Your task to perform on an android device: Open notification settings Image 0: 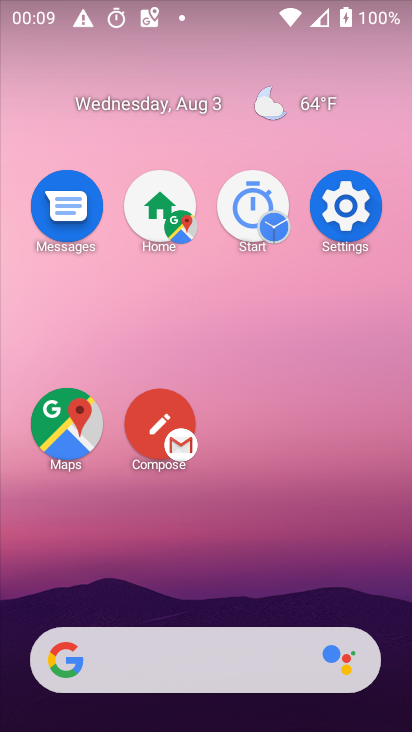
Step 0: click (358, 213)
Your task to perform on an android device: Open notification settings Image 1: 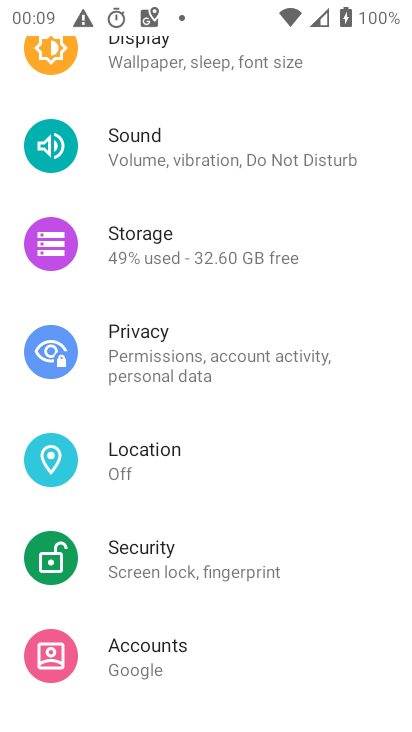
Step 1: click (354, 213)
Your task to perform on an android device: Open notification settings Image 2: 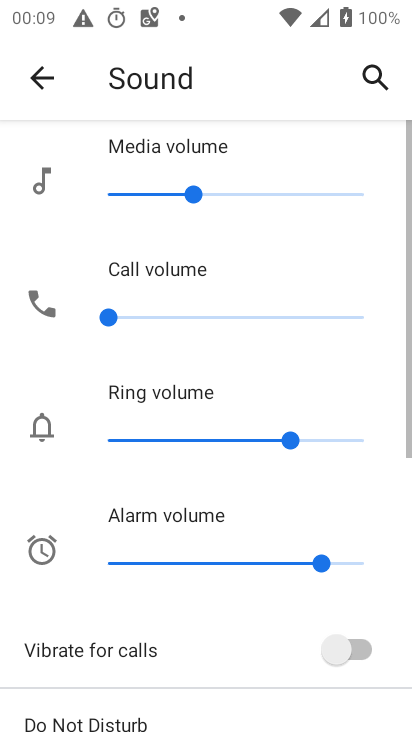
Step 2: click (174, 537)
Your task to perform on an android device: Open notification settings Image 3: 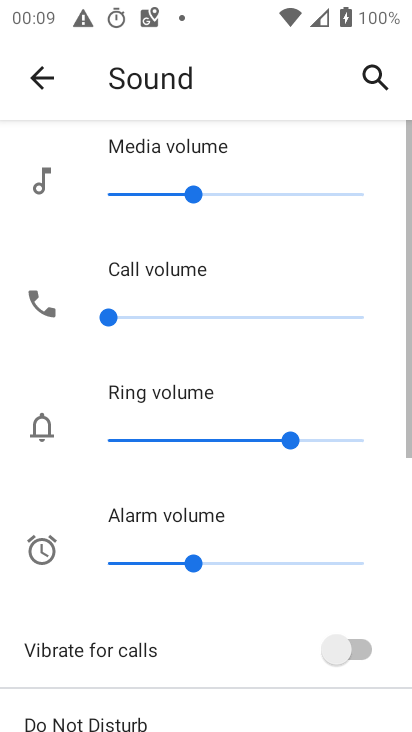
Step 3: click (36, 84)
Your task to perform on an android device: Open notification settings Image 4: 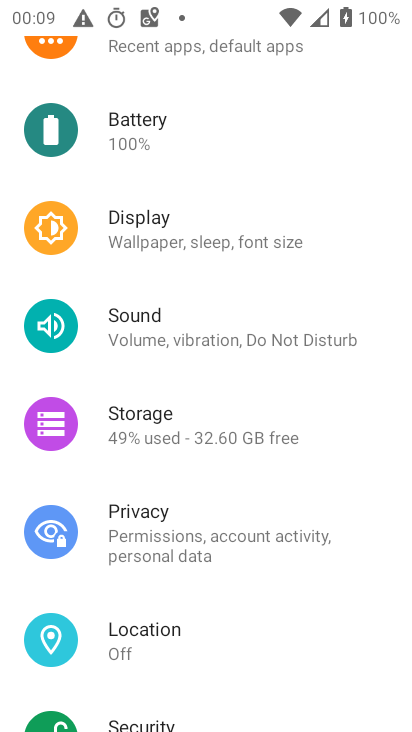
Step 4: drag from (139, 83) to (190, 652)
Your task to perform on an android device: Open notification settings Image 5: 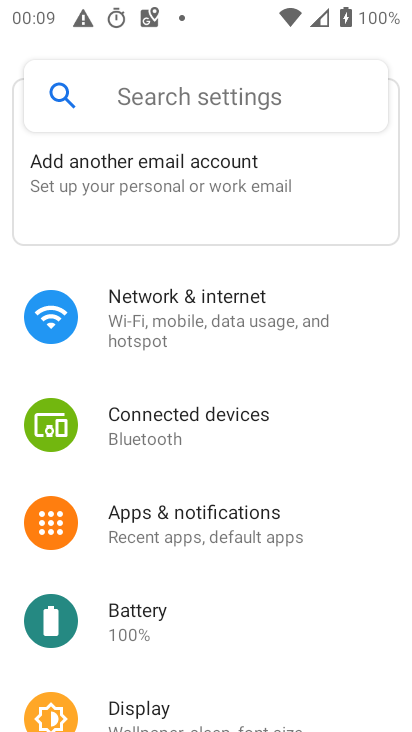
Step 5: drag from (158, 264) to (206, 701)
Your task to perform on an android device: Open notification settings Image 6: 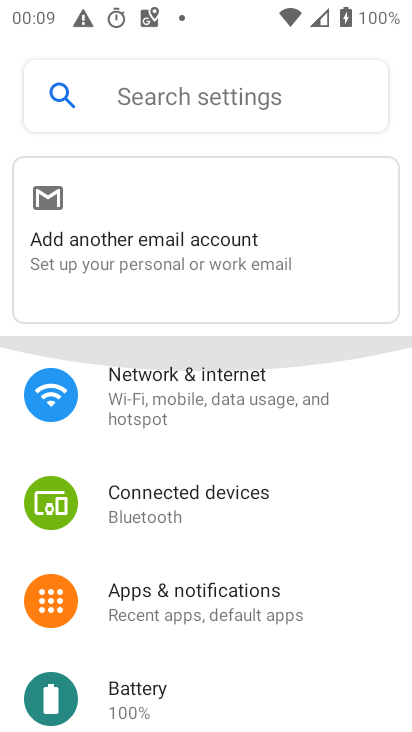
Step 6: drag from (234, 486) to (273, 690)
Your task to perform on an android device: Open notification settings Image 7: 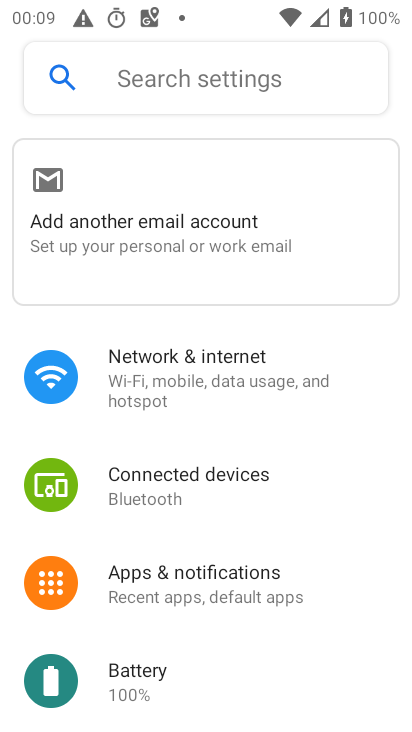
Step 7: click (178, 582)
Your task to perform on an android device: Open notification settings Image 8: 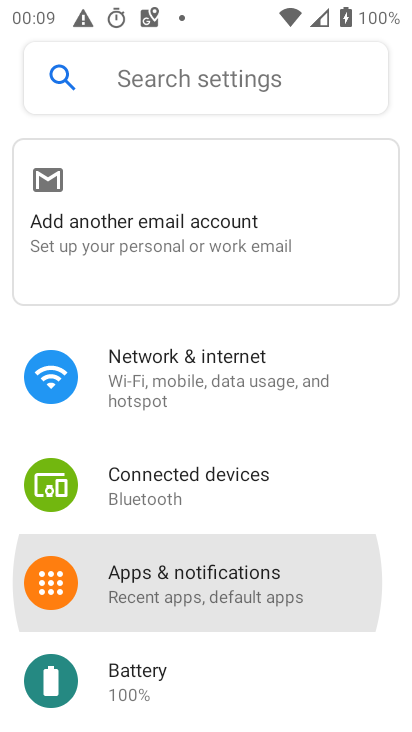
Step 8: click (178, 577)
Your task to perform on an android device: Open notification settings Image 9: 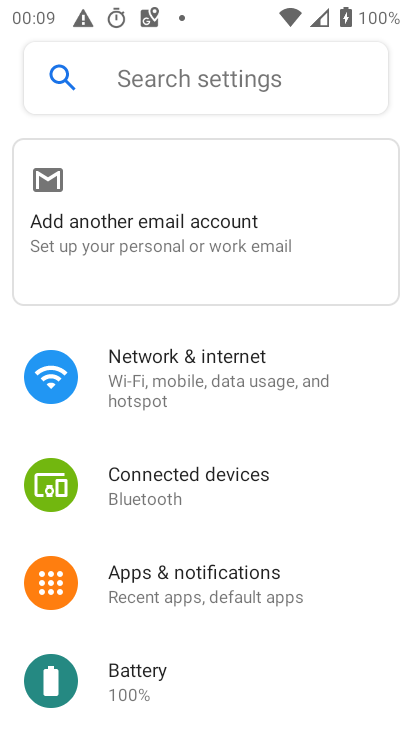
Step 9: click (186, 562)
Your task to perform on an android device: Open notification settings Image 10: 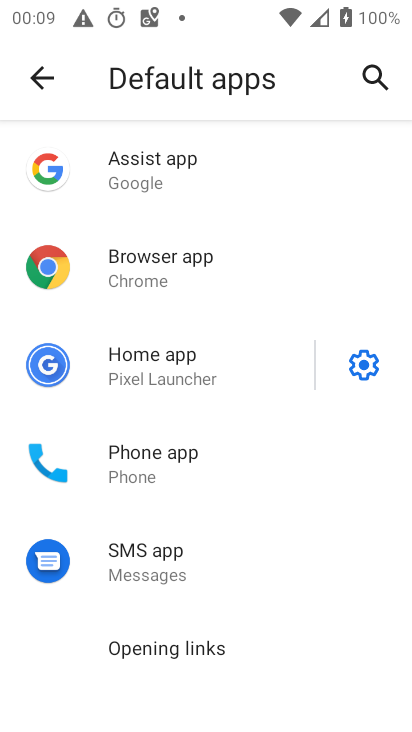
Step 10: task complete